Your task to perform on an android device: turn off notifications settings in the gmail app Image 0: 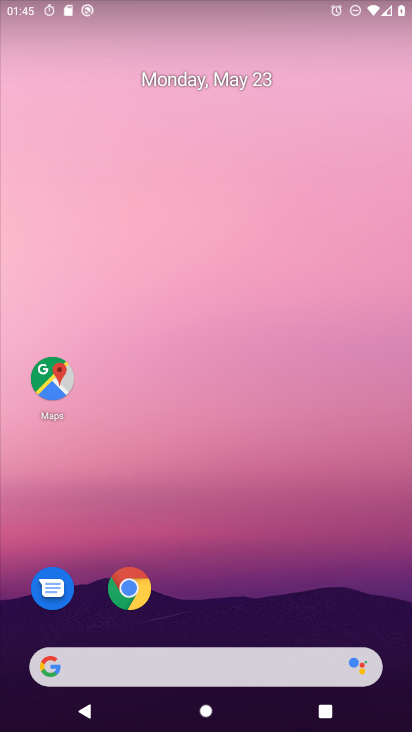
Step 0: drag from (278, 673) to (284, 48)
Your task to perform on an android device: turn off notifications settings in the gmail app Image 1: 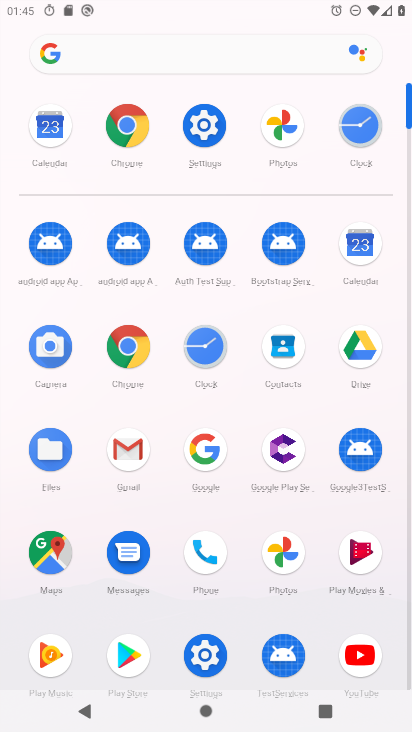
Step 1: click (142, 443)
Your task to perform on an android device: turn off notifications settings in the gmail app Image 2: 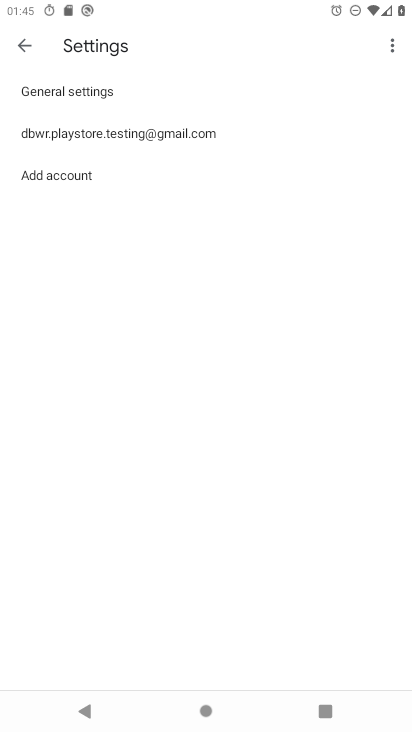
Step 2: click (107, 132)
Your task to perform on an android device: turn off notifications settings in the gmail app Image 3: 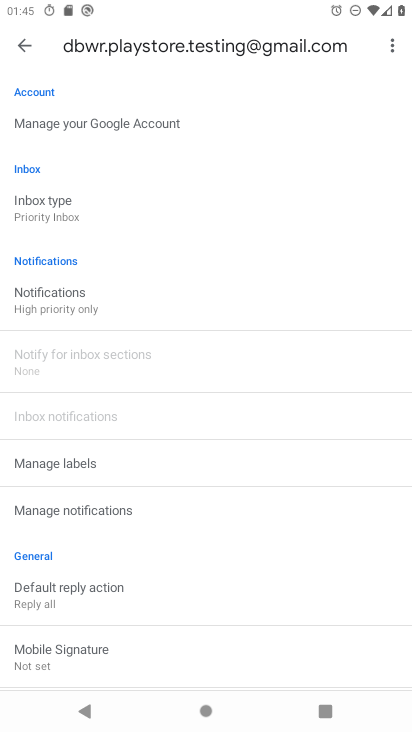
Step 3: click (90, 296)
Your task to perform on an android device: turn off notifications settings in the gmail app Image 4: 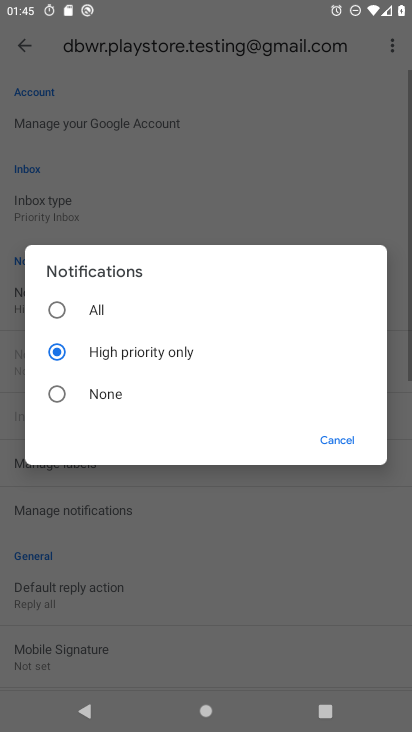
Step 4: click (98, 390)
Your task to perform on an android device: turn off notifications settings in the gmail app Image 5: 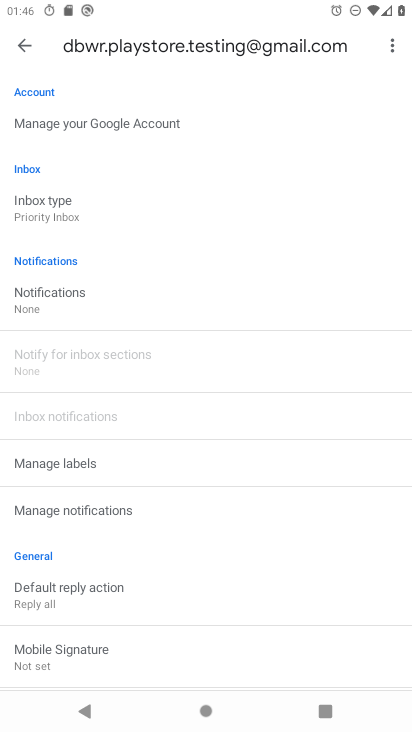
Step 5: task complete